Your task to perform on an android device: toggle airplane mode Image 0: 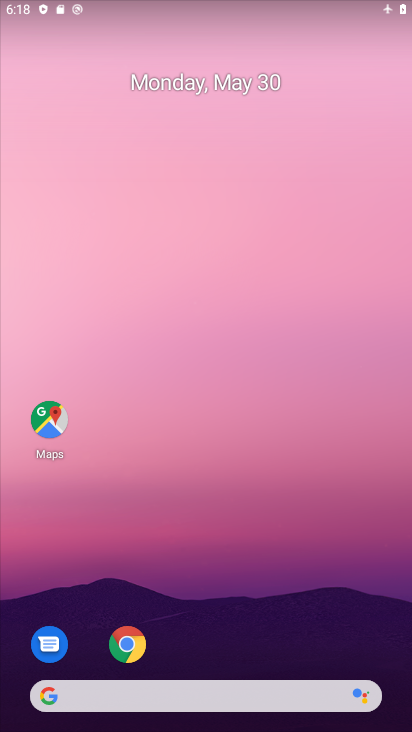
Step 0: drag from (215, 645) to (286, 5)
Your task to perform on an android device: toggle airplane mode Image 1: 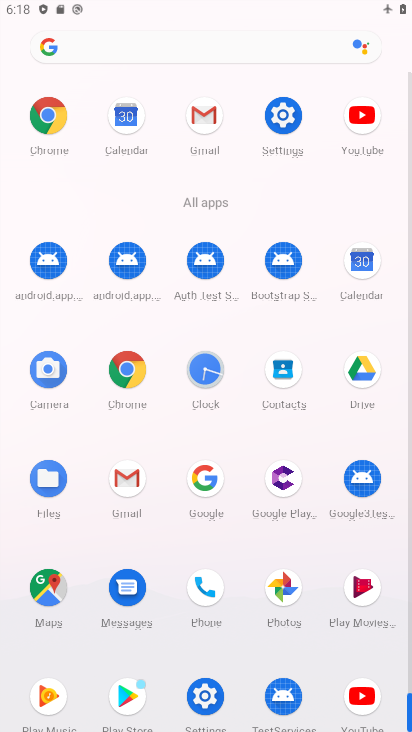
Step 1: click (205, 709)
Your task to perform on an android device: toggle airplane mode Image 2: 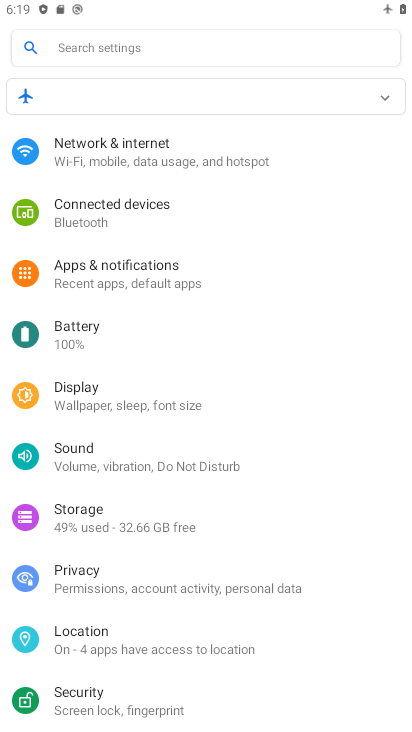
Step 2: click (385, 93)
Your task to perform on an android device: toggle airplane mode Image 3: 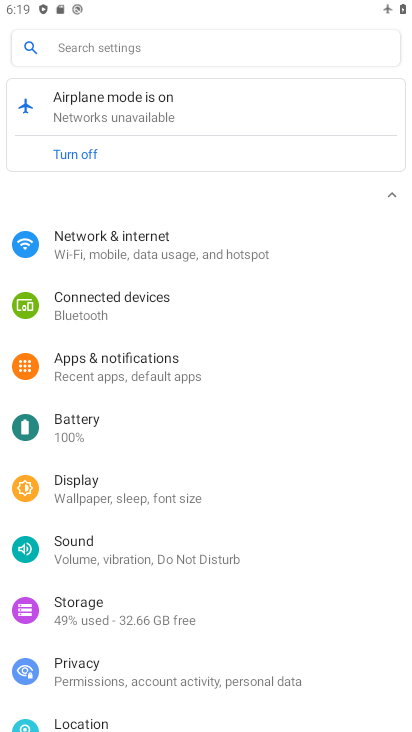
Step 3: click (94, 162)
Your task to perform on an android device: toggle airplane mode Image 4: 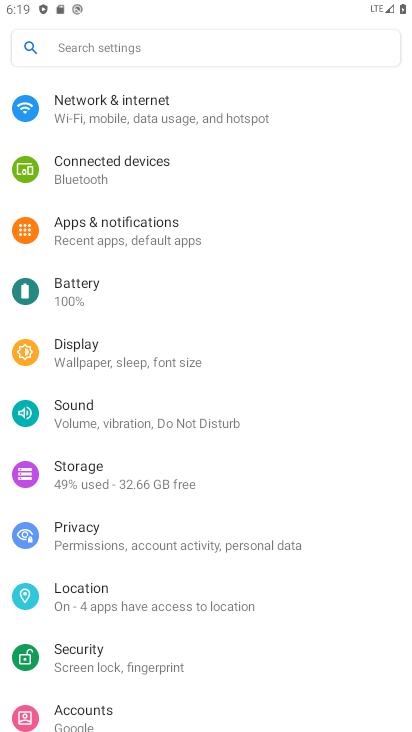
Step 4: task complete